Your task to perform on an android device: change text size in settings app Image 0: 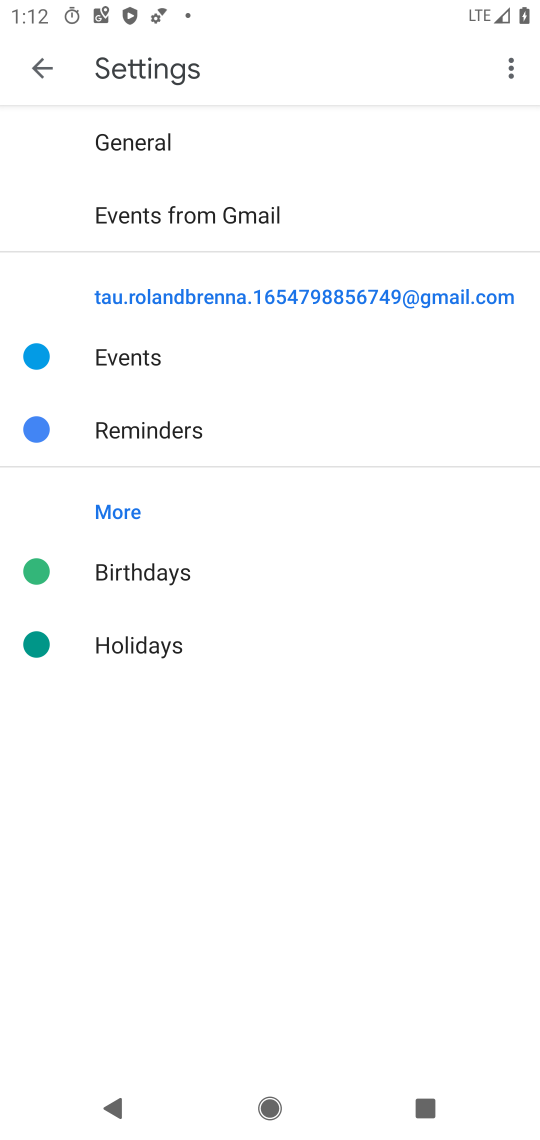
Step 0: press home button
Your task to perform on an android device: change text size in settings app Image 1: 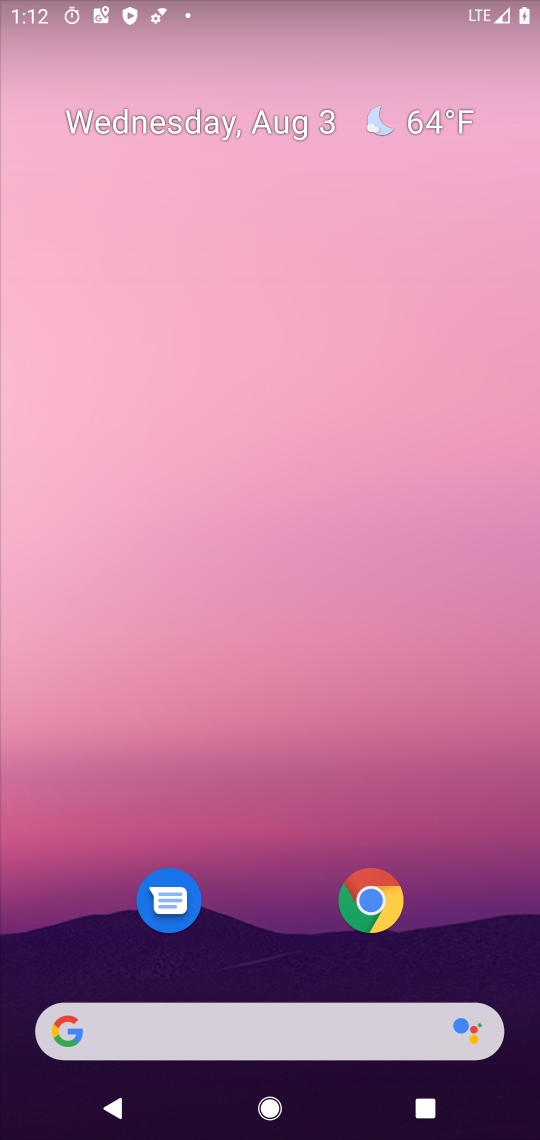
Step 1: drag from (226, 958) to (190, 8)
Your task to perform on an android device: change text size in settings app Image 2: 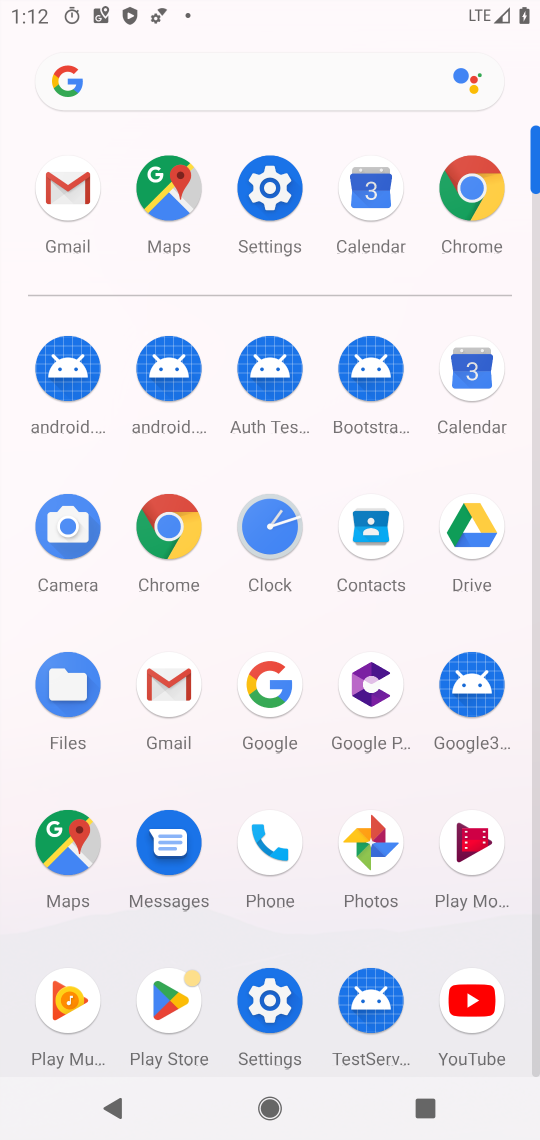
Step 2: click (280, 206)
Your task to perform on an android device: change text size in settings app Image 3: 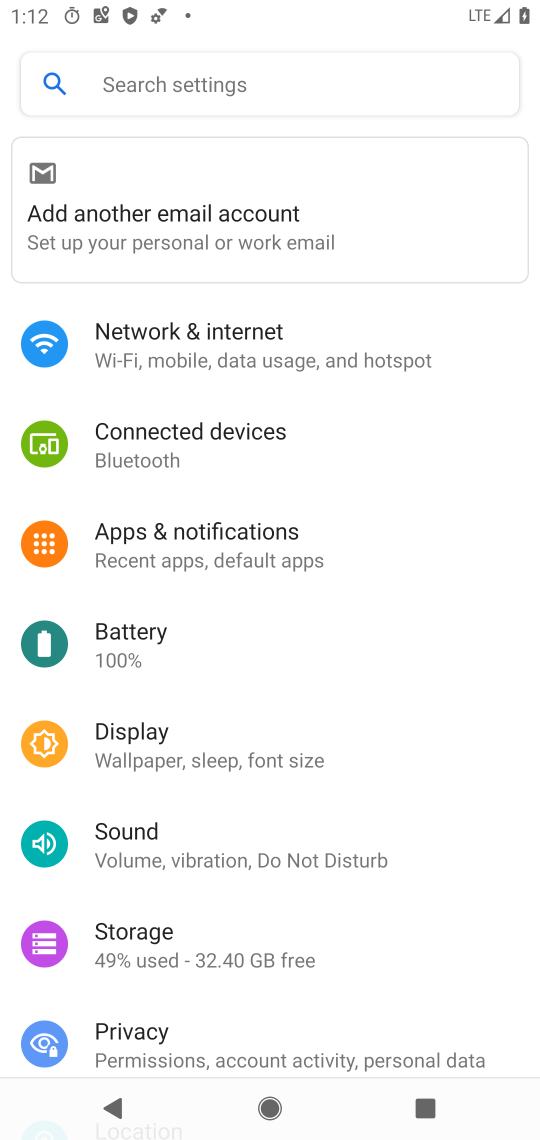
Step 3: click (282, 773)
Your task to perform on an android device: change text size in settings app Image 4: 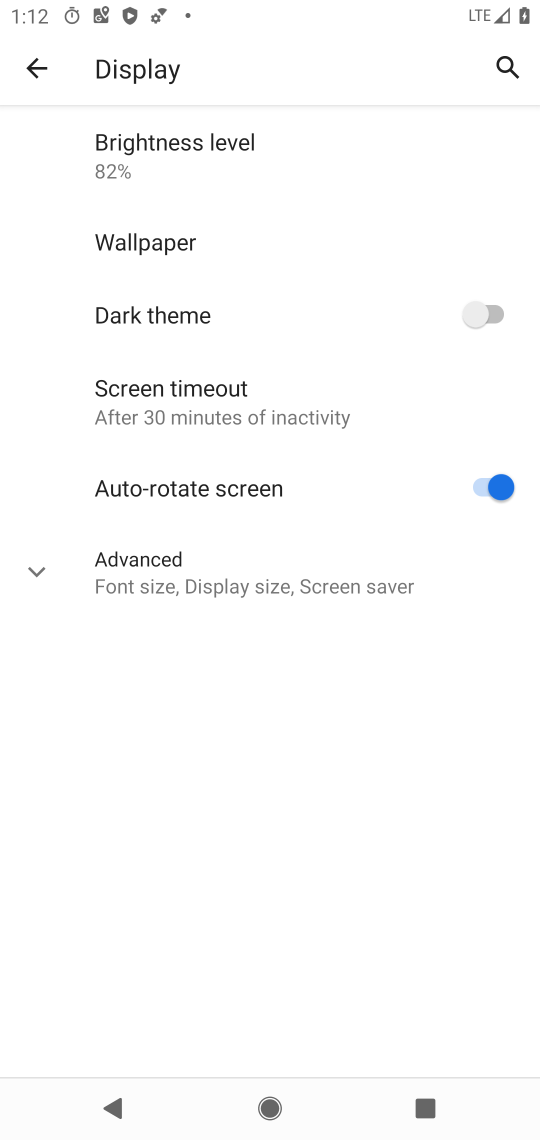
Step 4: click (282, 590)
Your task to perform on an android device: change text size in settings app Image 5: 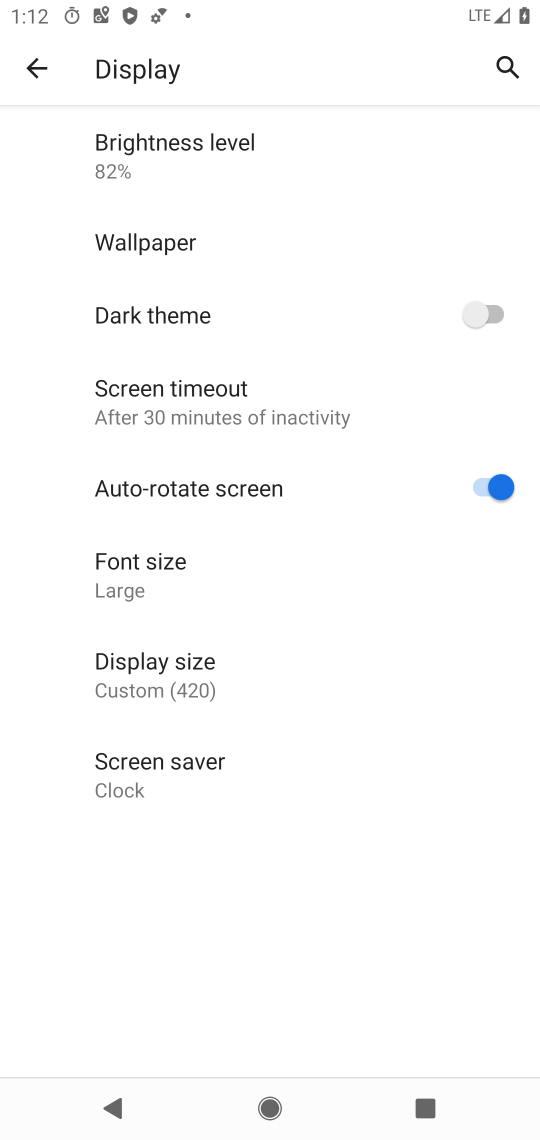
Step 5: click (66, 581)
Your task to perform on an android device: change text size in settings app Image 6: 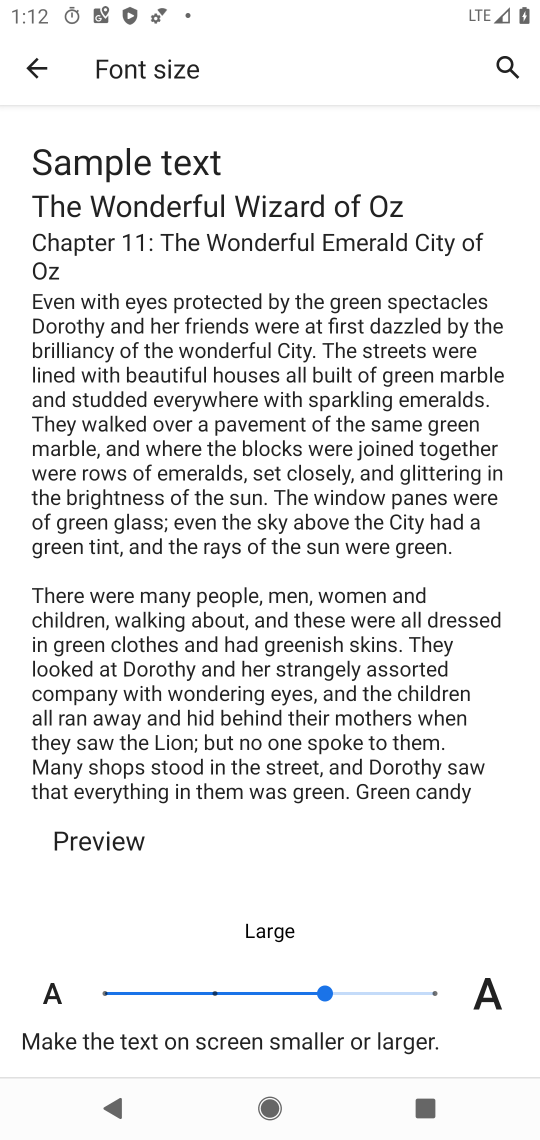
Step 6: click (210, 987)
Your task to perform on an android device: change text size in settings app Image 7: 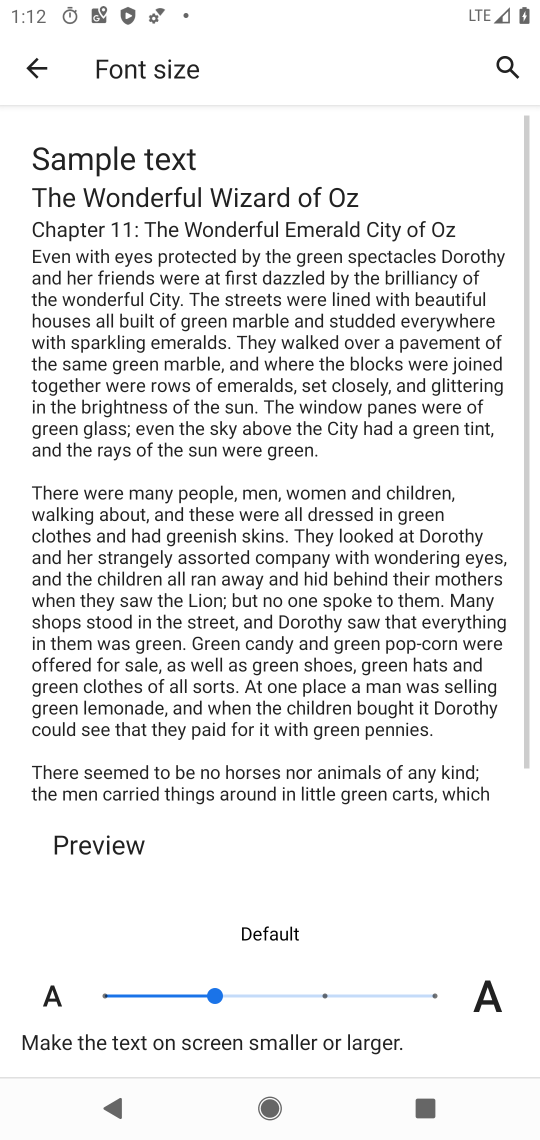
Step 7: task complete